Your task to perform on an android device: change the clock display to show seconds Image 0: 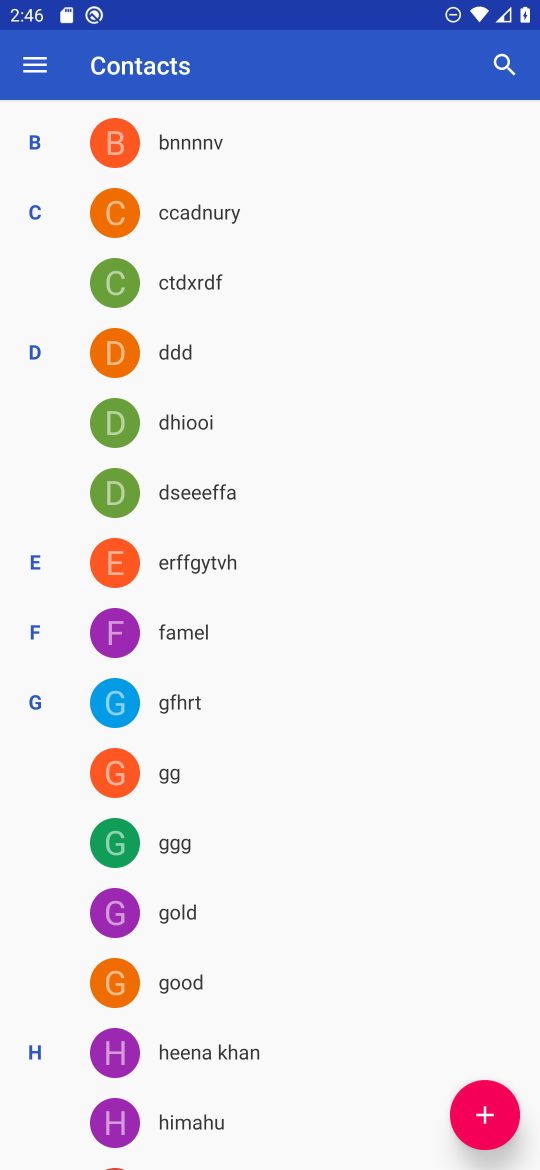
Step 0: press home button
Your task to perform on an android device: change the clock display to show seconds Image 1: 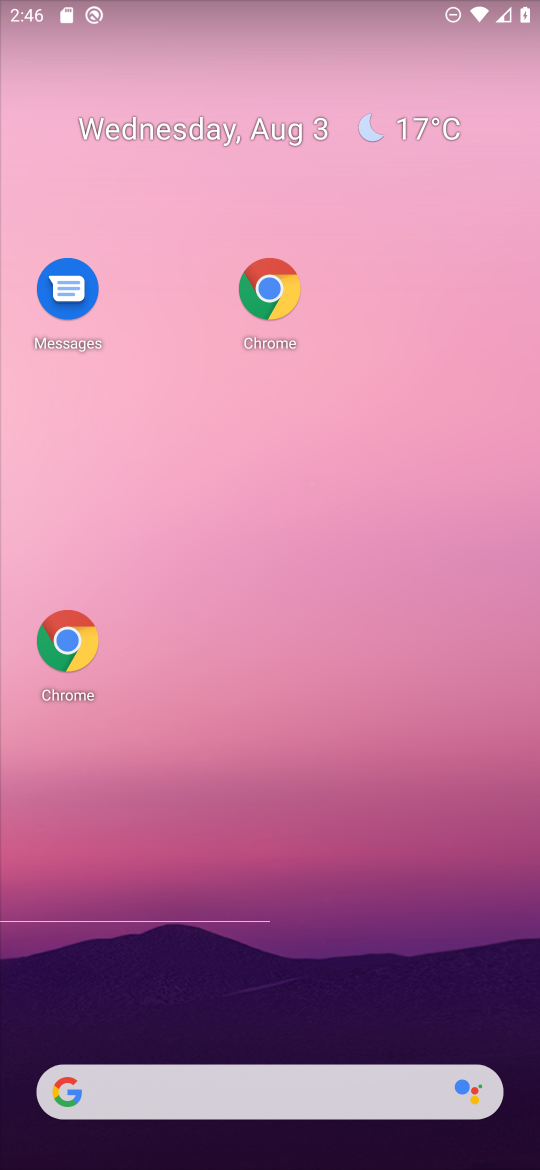
Step 1: drag from (386, 1022) to (371, 93)
Your task to perform on an android device: change the clock display to show seconds Image 2: 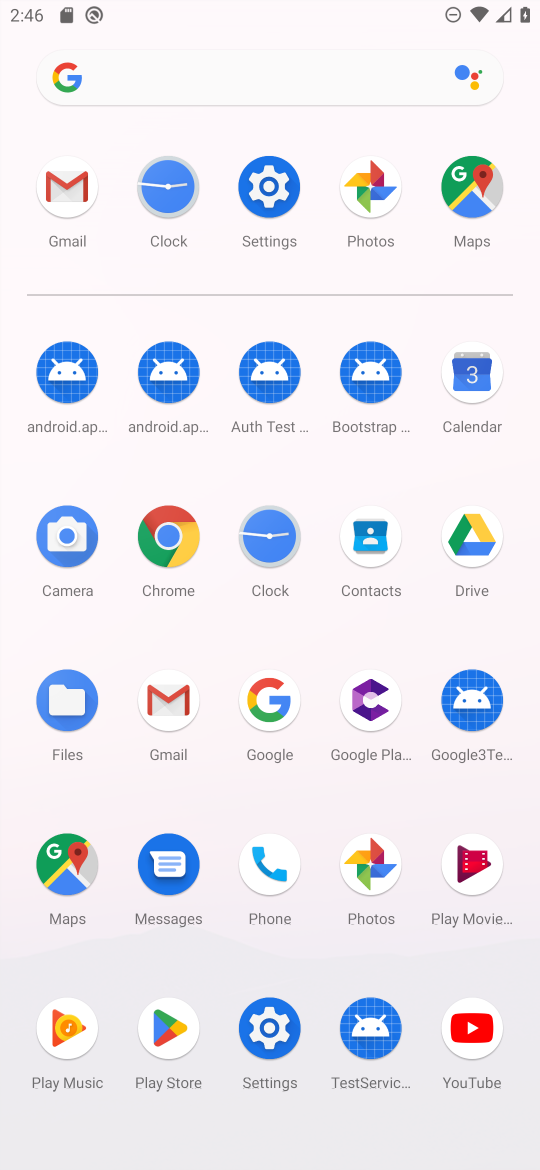
Step 2: click (254, 546)
Your task to perform on an android device: change the clock display to show seconds Image 3: 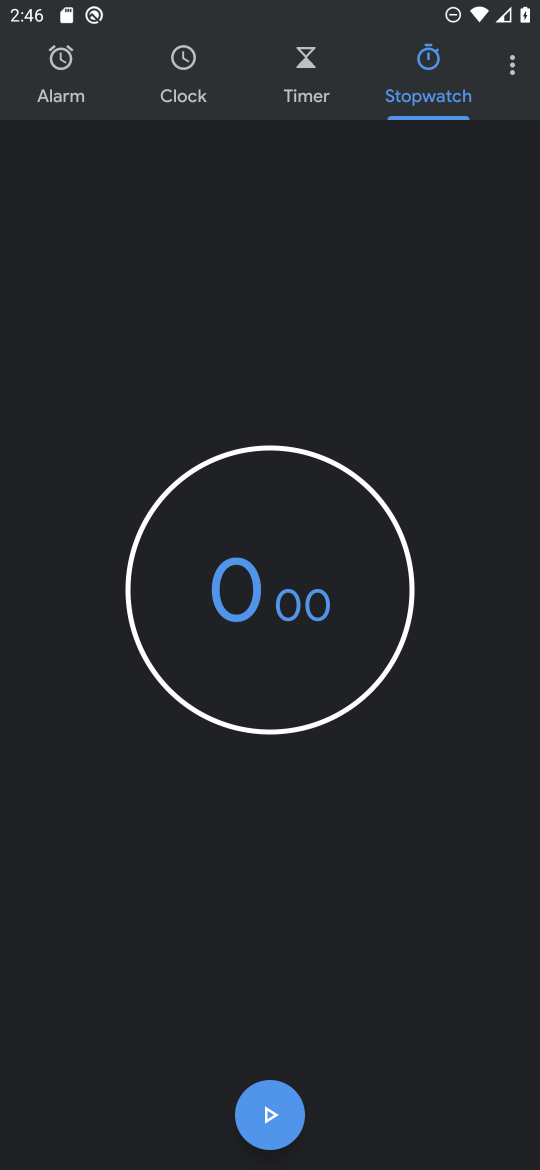
Step 3: click (516, 56)
Your task to perform on an android device: change the clock display to show seconds Image 4: 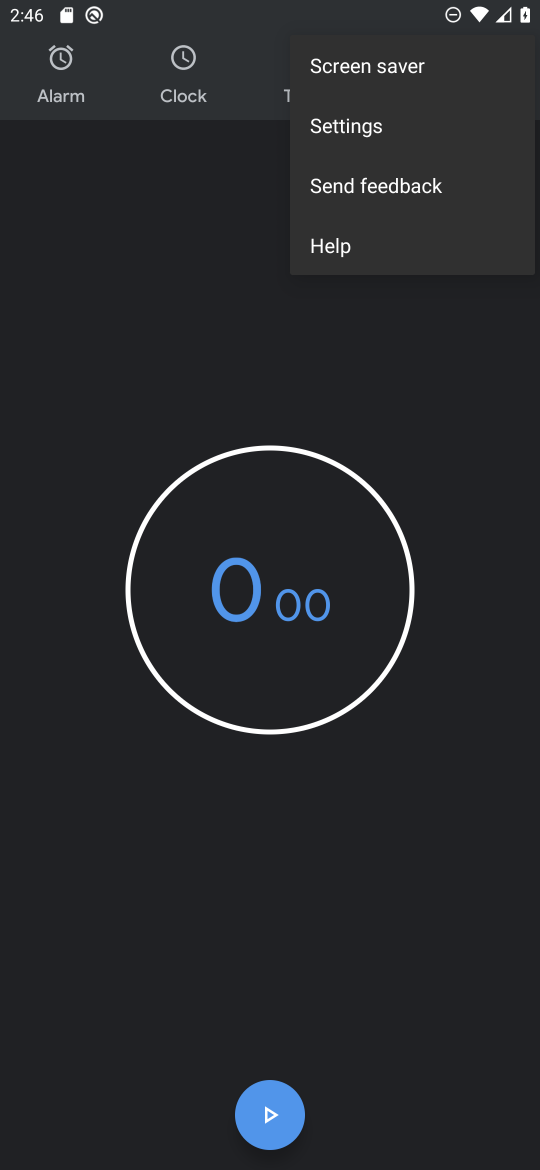
Step 4: click (361, 137)
Your task to perform on an android device: change the clock display to show seconds Image 5: 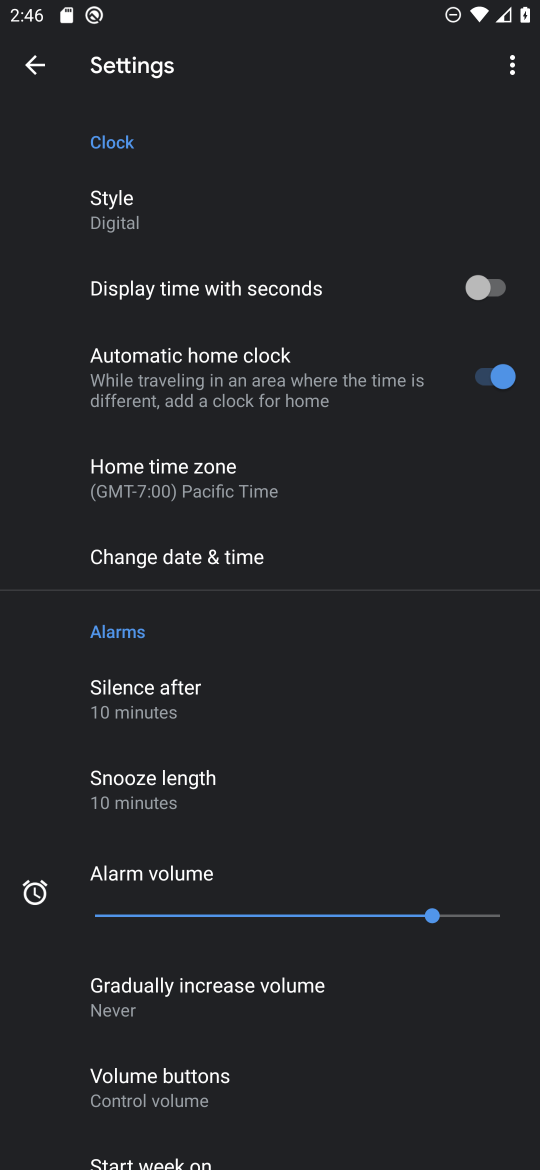
Step 5: click (454, 281)
Your task to perform on an android device: change the clock display to show seconds Image 6: 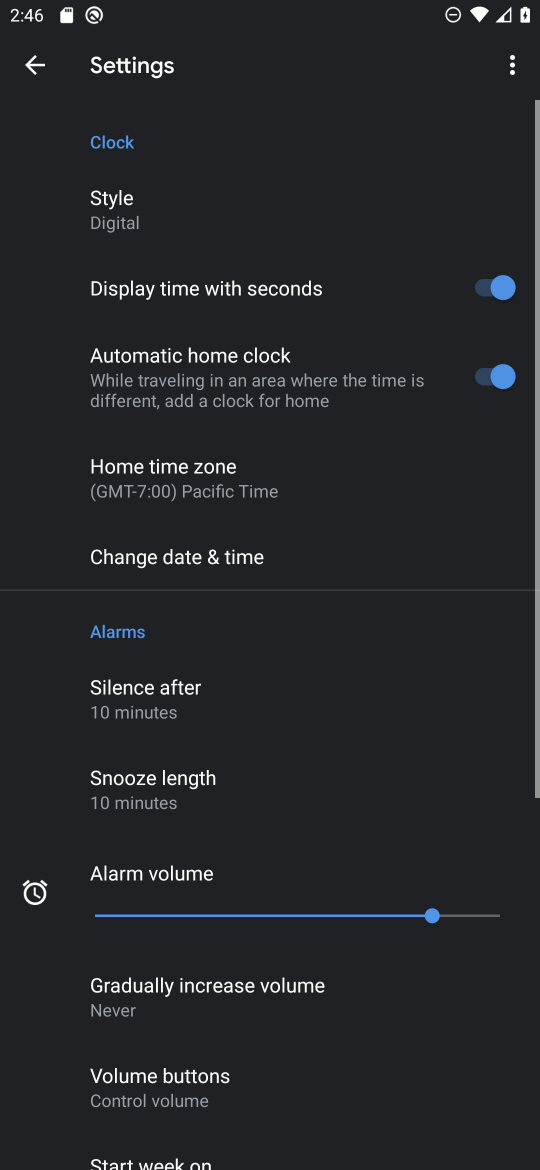
Step 6: task complete